Your task to perform on an android device: Search for logitech g502 on ebay, select the first entry, and add it to the cart. Image 0: 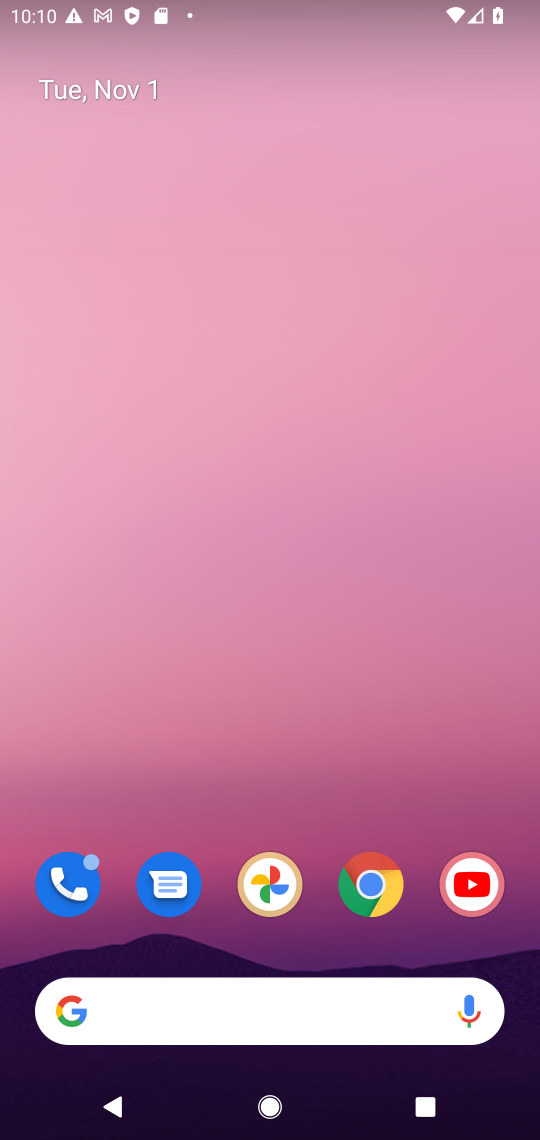
Step 0: click (380, 902)
Your task to perform on an android device: Search for logitech g502 on ebay, select the first entry, and add it to the cart. Image 1: 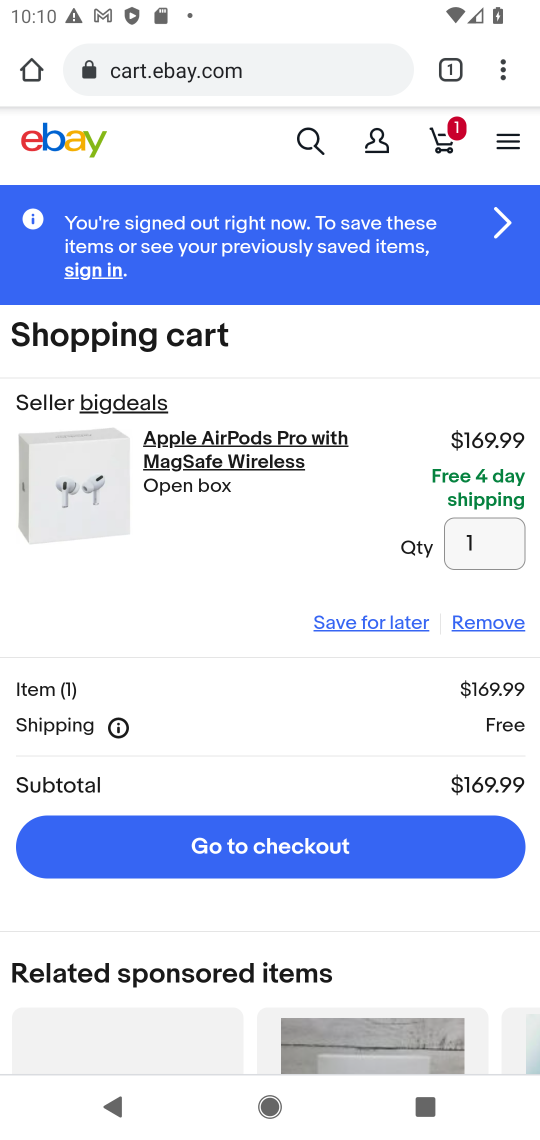
Step 1: click (223, 78)
Your task to perform on an android device: Search for logitech g502 on ebay, select the first entry, and add it to the cart. Image 2: 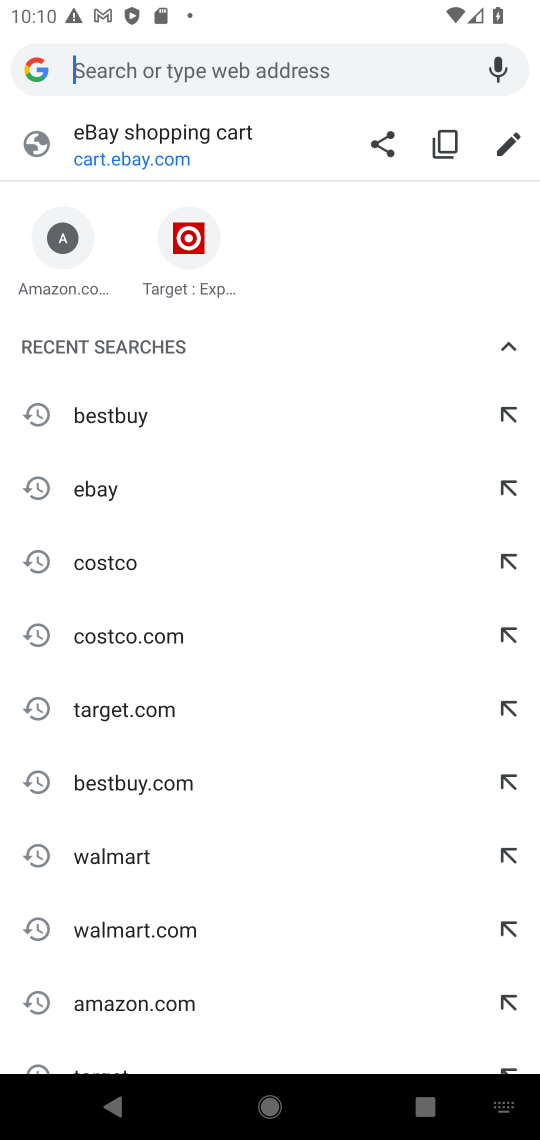
Step 2: type "ebay"
Your task to perform on an android device: Search for logitech g502 on ebay, select the first entry, and add it to the cart. Image 3: 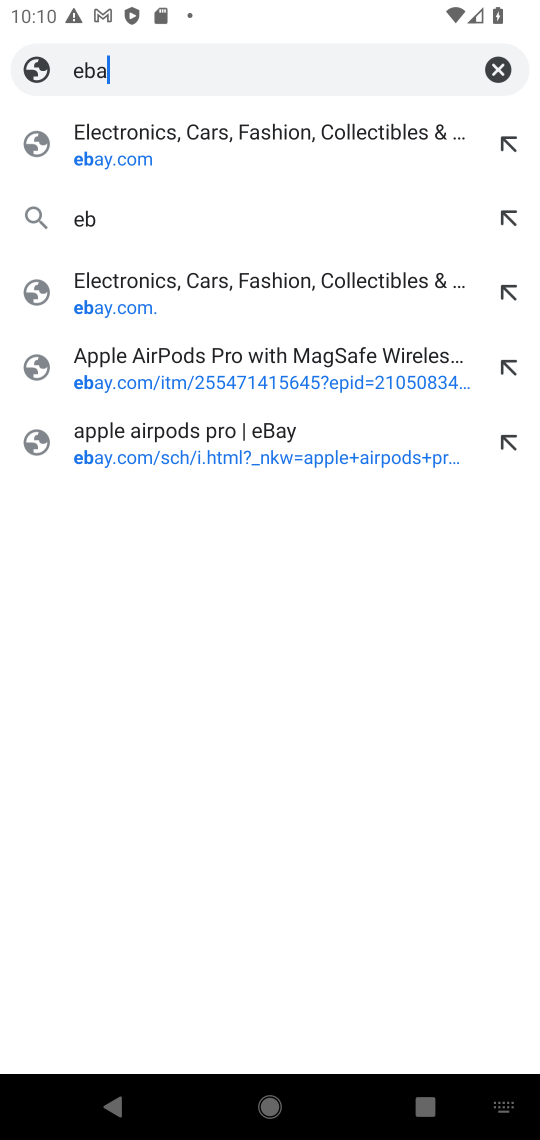
Step 3: type ""
Your task to perform on an android device: Search for logitech g502 on ebay, select the first entry, and add it to the cart. Image 4: 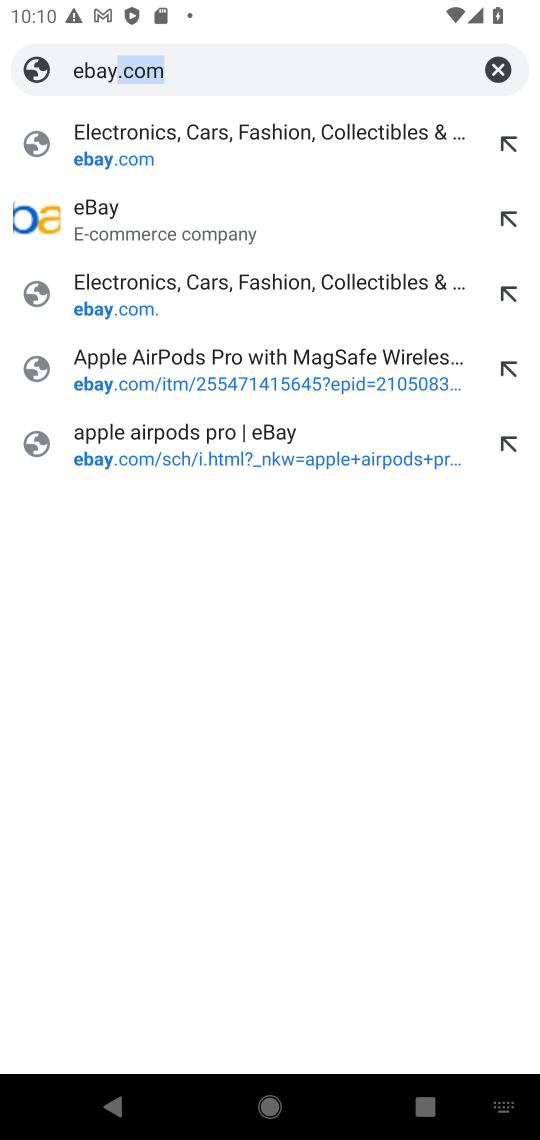
Step 4: press enter
Your task to perform on an android device: Search for logitech g502 on ebay, select the first entry, and add it to the cart. Image 5: 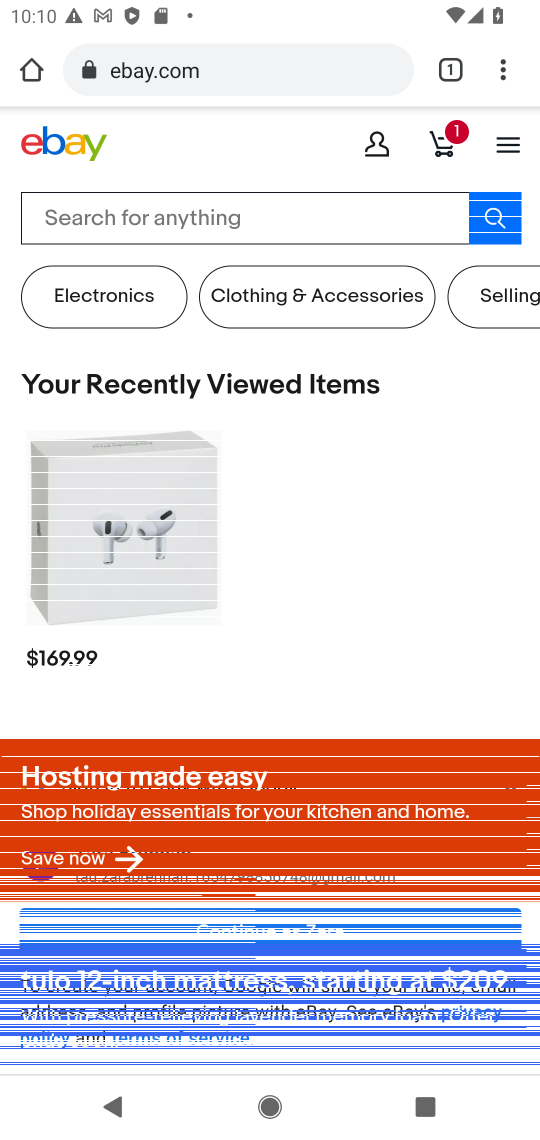
Step 5: click (194, 221)
Your task to perform on an android device: Search for logitech g502 on ebay, select the first entry, and add it to the cart. Image 6: 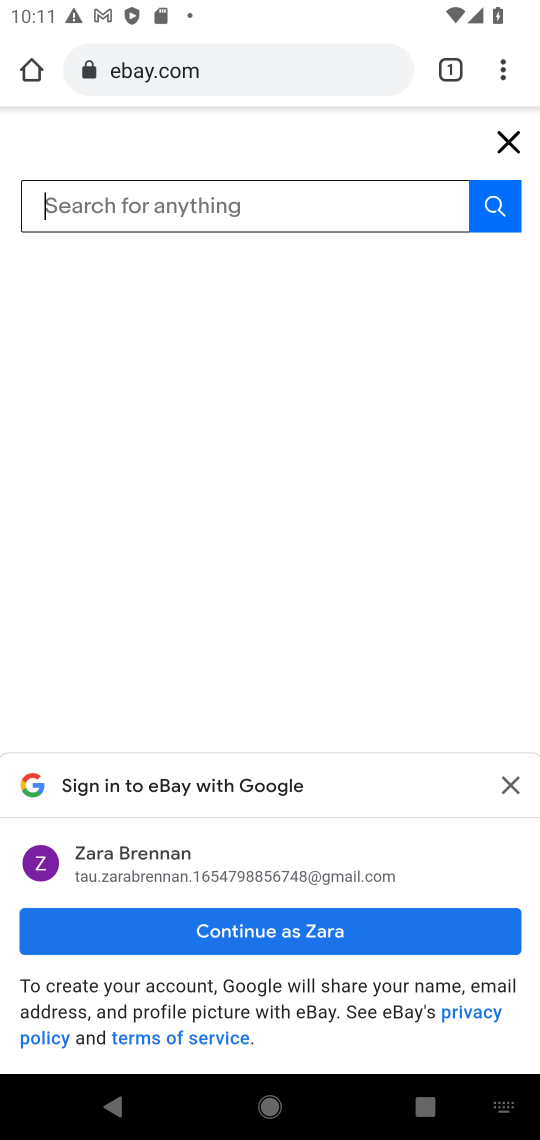
Step 6: type "logitech g502"
Your task to perform on an android device: Search for logitech g502 on ebay, select the first entry, and add it to the cart. Image 7: 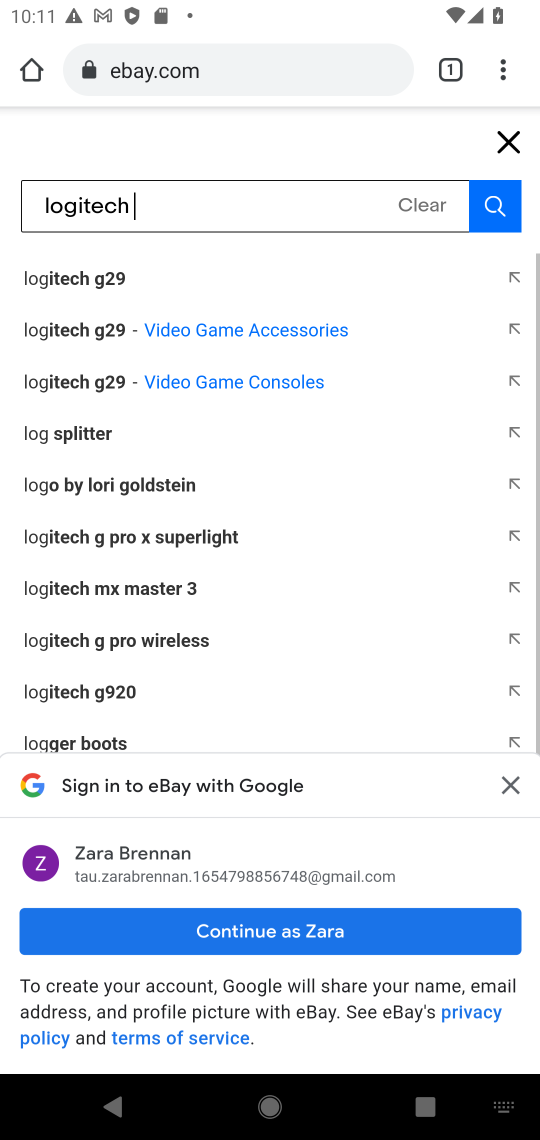
Step 7: type ""
Your task to perform on an android device: Search for logitech g502 on ebay, select the first entry, and add it to the cart. Image 8: 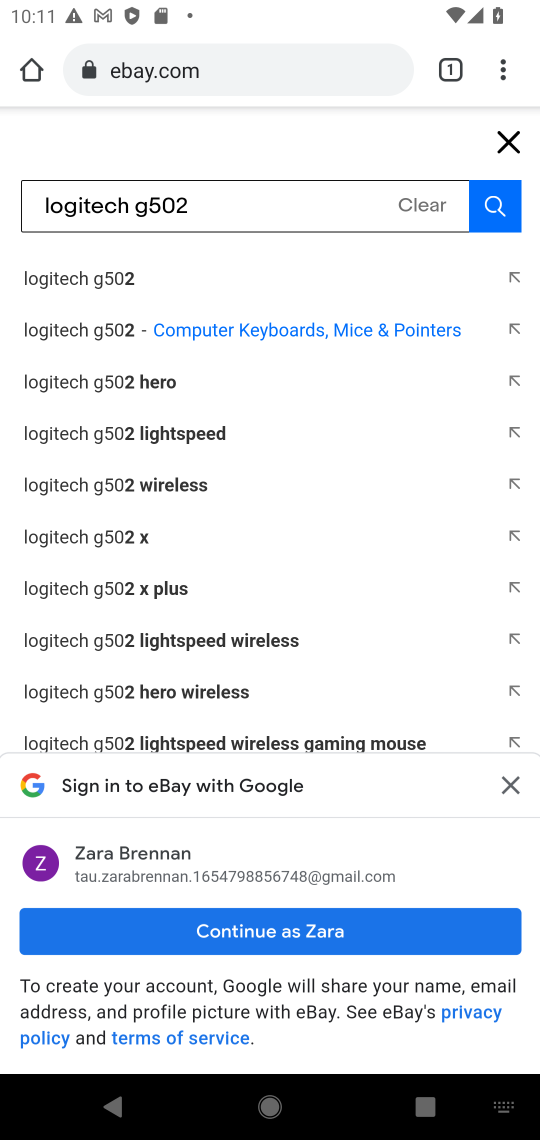
Step 8: press enter
Your task to perform on an android device: Search for logitech g502 on ebay, select the first entry, and add it to the cart. Image 9: 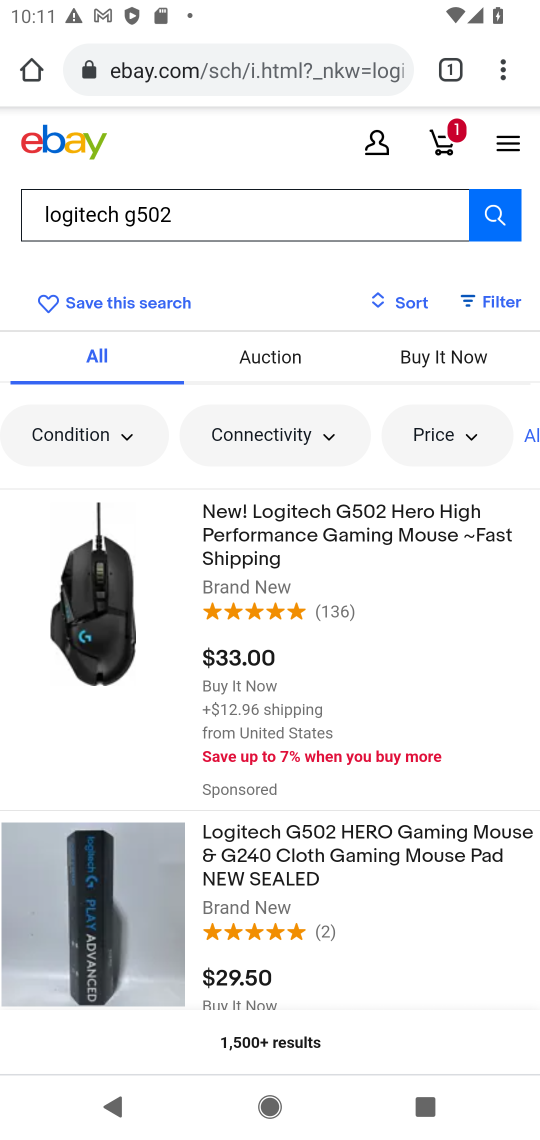
Step 9: click (346, 554)
Your task to perform on an android device: Search for logitech g502 on ebay, select the first entry, and add it to the cart. Image 10: 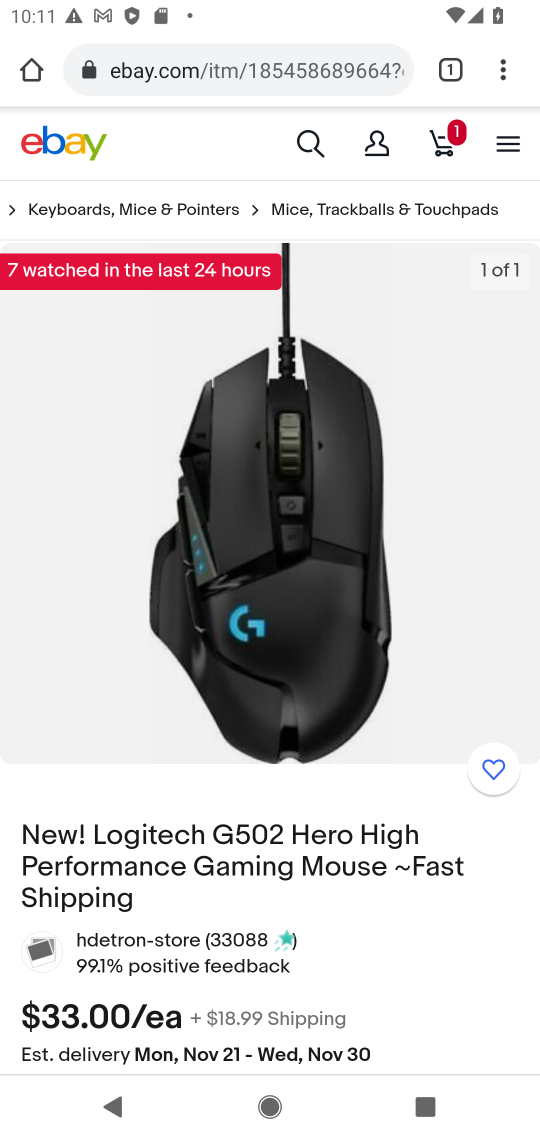
Step 10: drag from (402, 904) to (387, 277)
Your task to perform on an android device: Search for logitech g502 on ebay, select the first entry, and add it to the cart. Image 11: 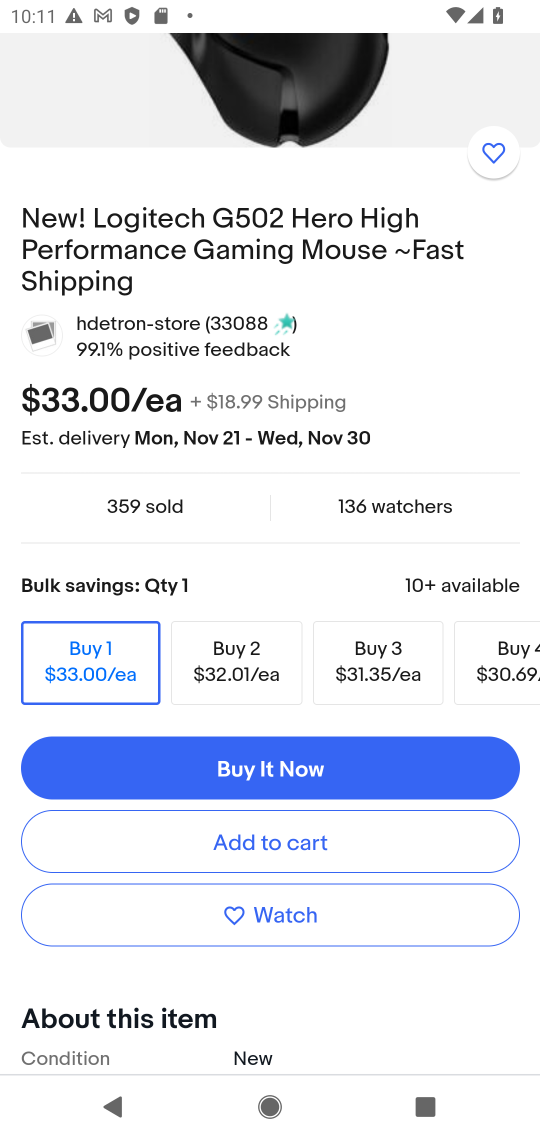
Step 11: click (328, 832)
Your task to perform on an android device: Search for logitech g502 on ebay, select the first entry, and add it to the cart. Image 12: 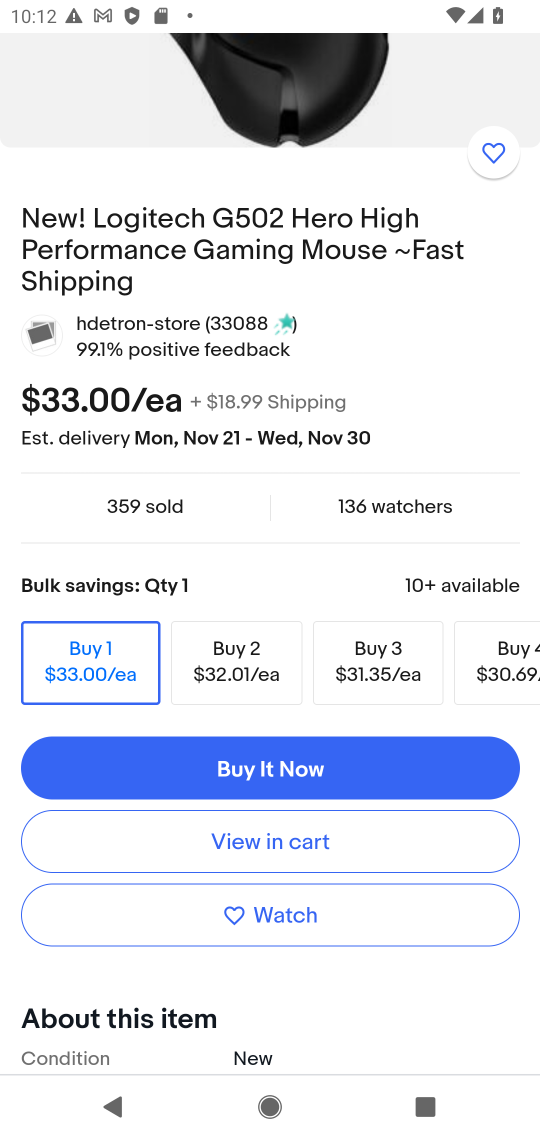
Step 12: click (285, 843)
Your task to perform on an android device: Search for logitech g502 on ebay, select the first entry, and add it to the cart. Image 13: 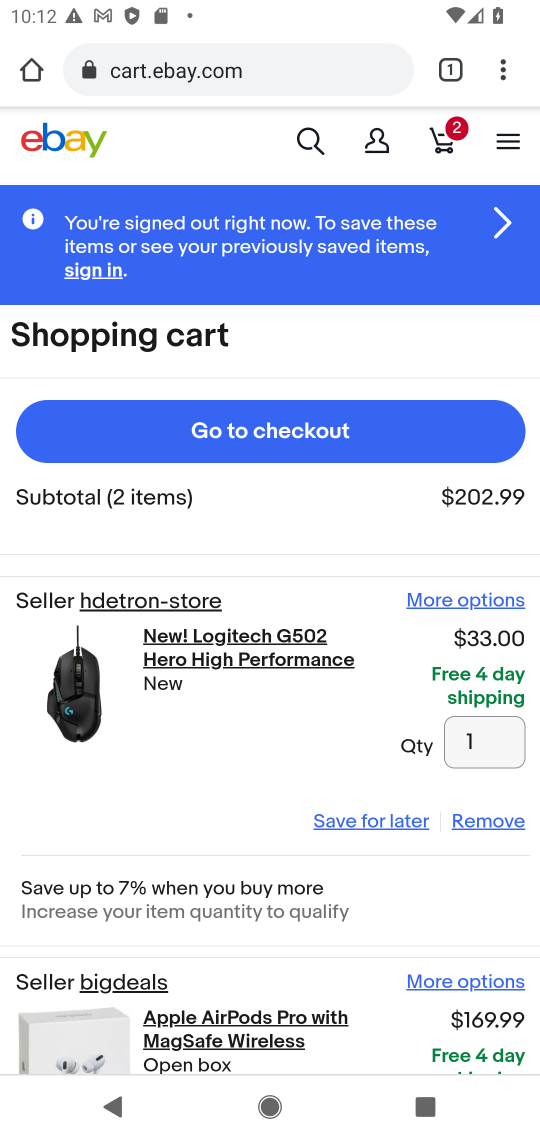
Step 13: task complete